Your task to perform on an android device: open wifi settings Image 0: 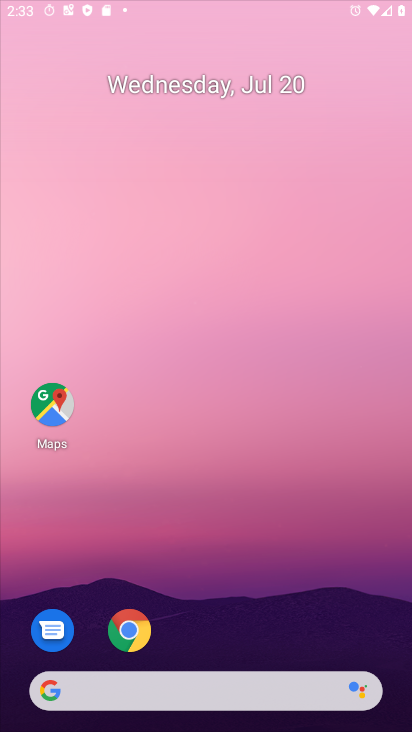
Step 0: press home button
Your task to perform on an android device: open wifi settings Image 1: 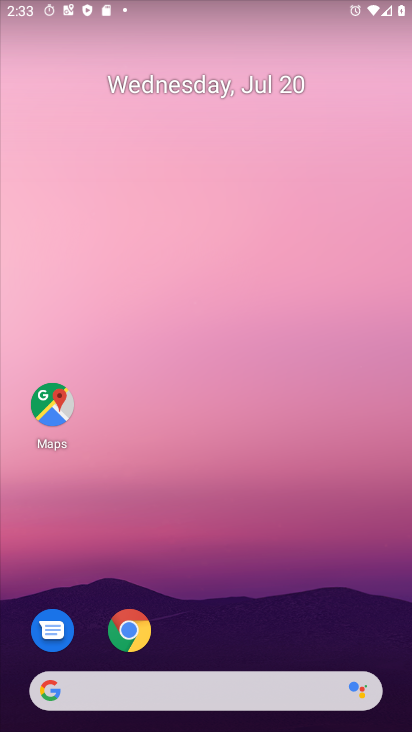
Step 1: drag from (127, 691) to (233, 122)
Your task to perform on an android device: open wifi settings Image 2: 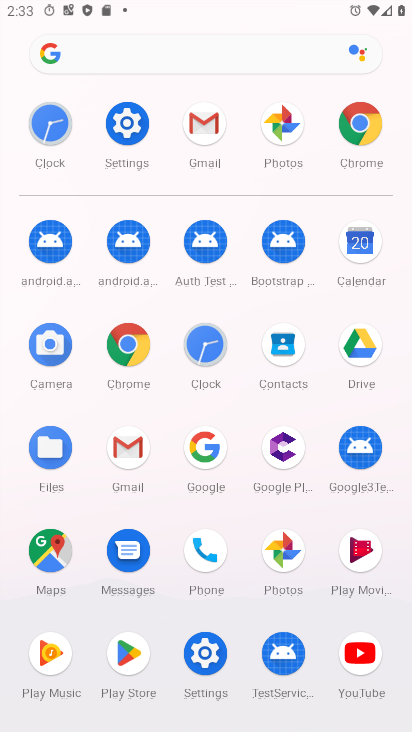
Step 2: click (136, 126)
Your task to perform on an android device: open wifi settings Image 3: 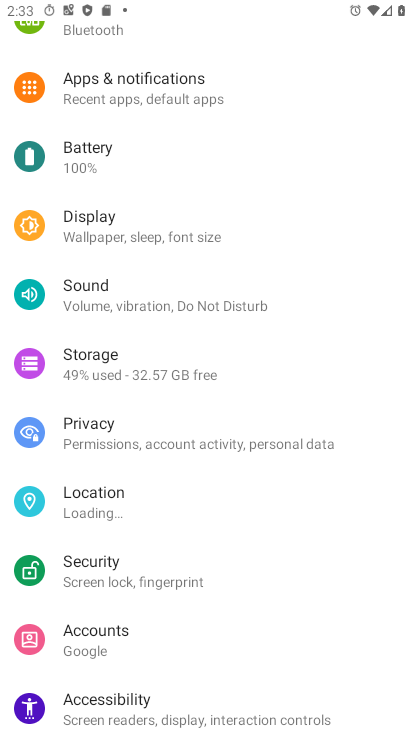
Step 3: drag from (319, 96) to (187, 620)
Your task to perform on an android device: open wifi settings Image 4: 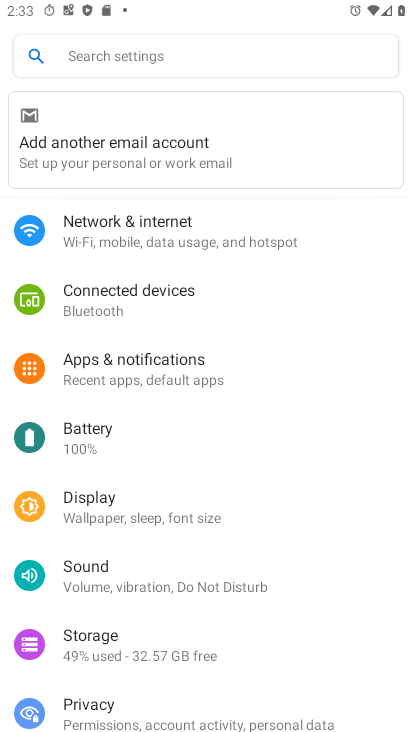
Step 4: click (158, 238)
Your task to perform on an android device: open wifi settings Image 5: 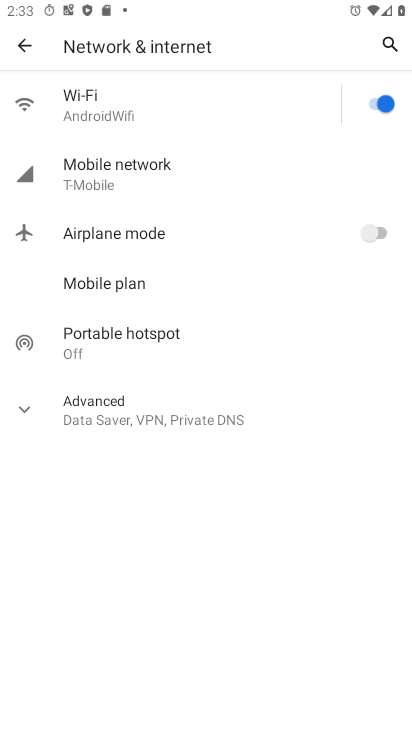
Step 5: click (103, 111)
Your task to perform on an android device: open wifi settings Image 6: 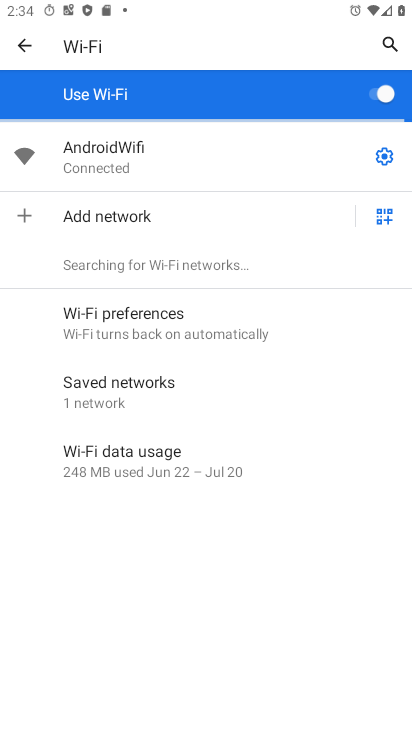
Step 6: task complete